Your task to perform on an android device: Is it going to rain tomorrow? Image 0: 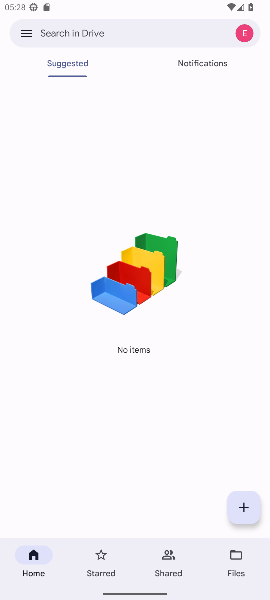
Step 0: press home button
Your task to perform on an android device: Is it going to rain tomorrow? Image 1: 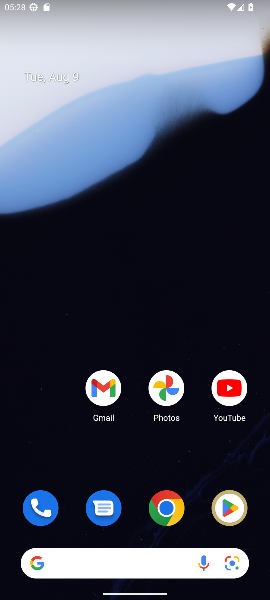
Step 1: drag from (137, 445) to (164, 76)
Your task to perform on an android device: Is it going to rain tomorrow? Image 2: 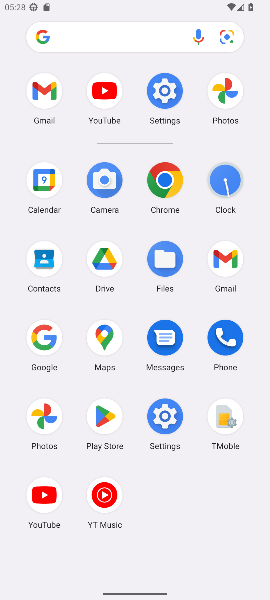
Step 2: click (38, 347)
Your task to perform on an android device: Is it going to rain tomorrow? Image 3: 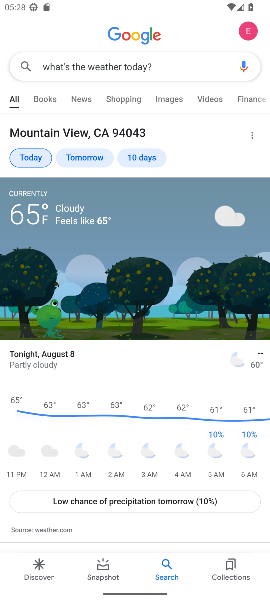
Step 3: click (164, 64)
Your task to perform on an android device: Is it going to rain tomorrow? Image 4: 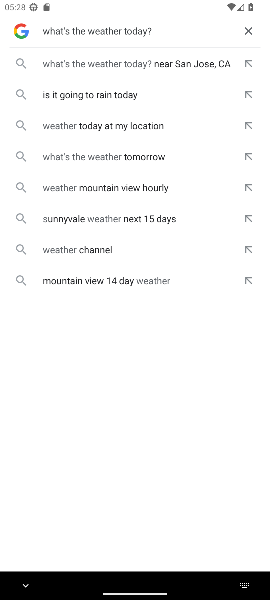
Step 4: click (244, 32)
Your task to perform on an android device: Is it going to rain tomorrow? Image 5: 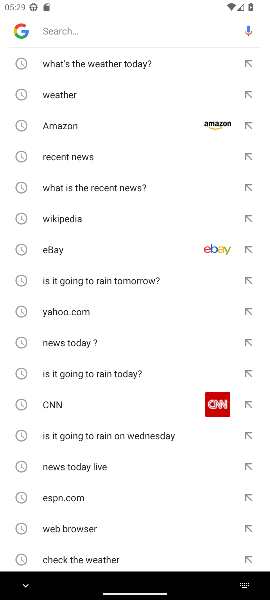
Step 5: type "is it going to rain tomorrow"
Your task to perform on an android device: Is it going to rain tomorrow? Image 6: 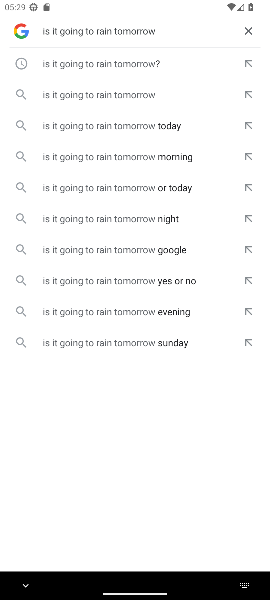
Step 6: click (183, 63)
Your task to perform on an android device: Is it going to rain tomorrow? Image 7: 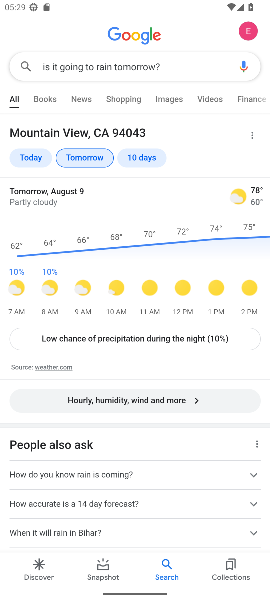
Step 7: task complete